Your task to perform on an android device: Show me recent news Image 0: 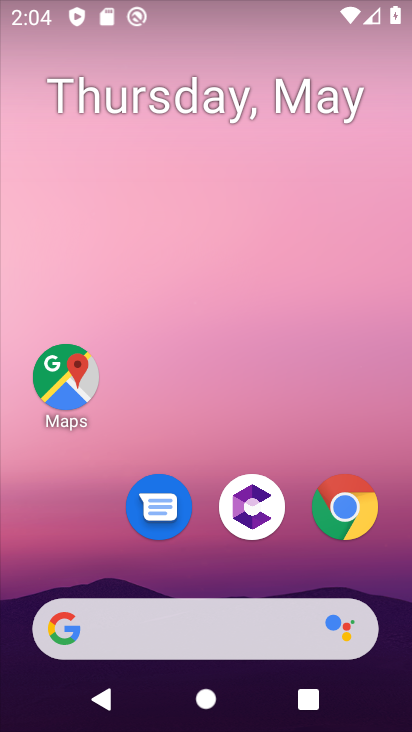
Step 0: press home button
Your task to perform on an android device: Show me recent news Image 1: 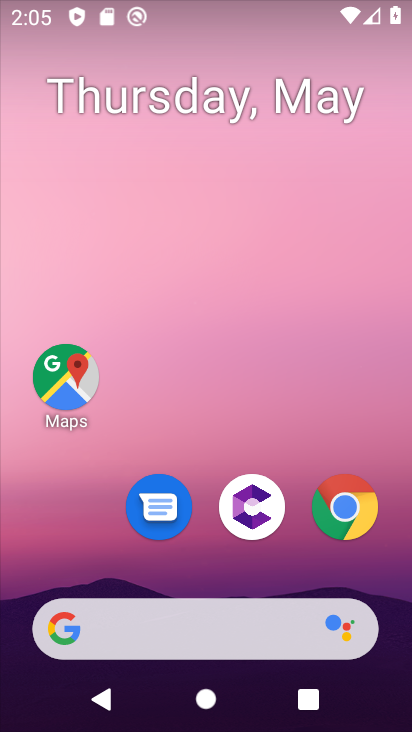
Step 1: click (58, 642)
Your task to perform on an android device: Show me recent news Image 2: 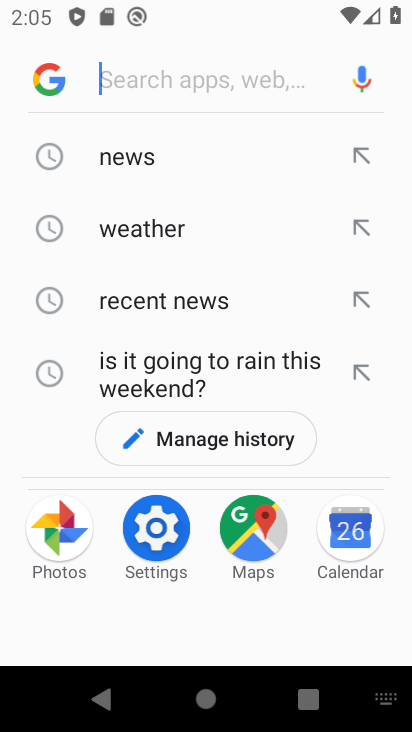
Step 2: click (164, 304)
Your task to perform on an android device: Show me recent news Image 3: 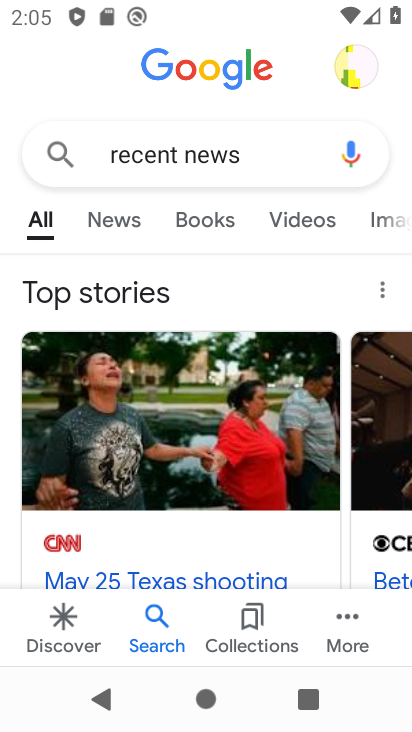
Step 3: task complete